Your task to perform on an android device: turn on the 24-hour format for clock Image 0: 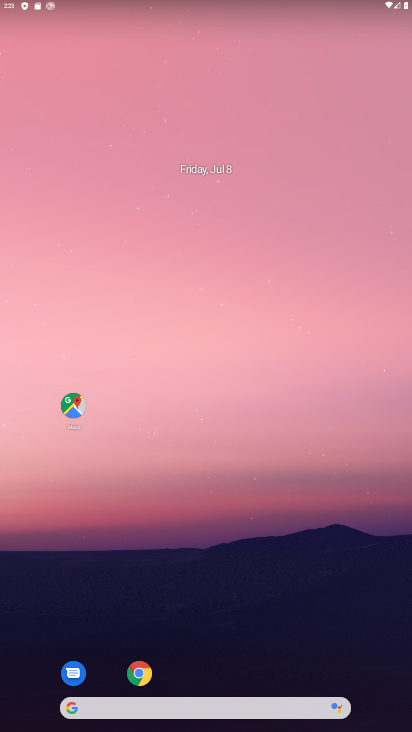
Step 0: drag from (329, 647) to (339, 14)
Your task to perform on an android device: turn on the 24-hour format for clock Image 1: 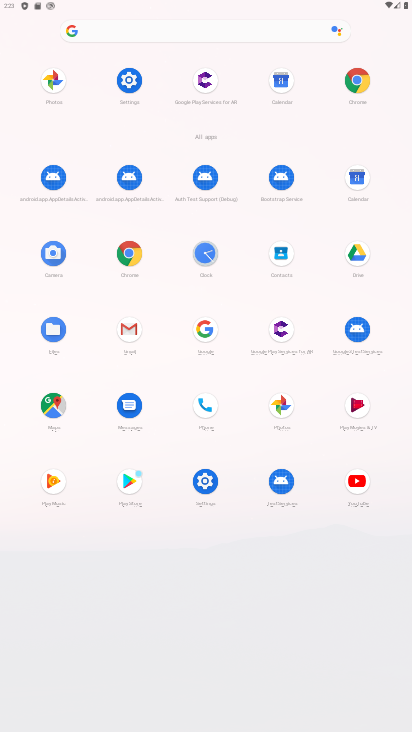
Step 1: click (218, 244)
Your task to perform on an android device: turn on the 24-hour format for clock Image 2: 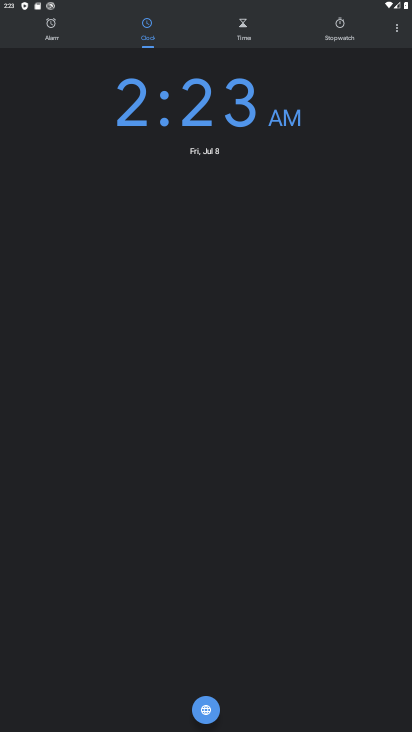
Step 2: click (392, 34)
Your task to perform on an android device: turn on the 24-hour format for clock Image 3: 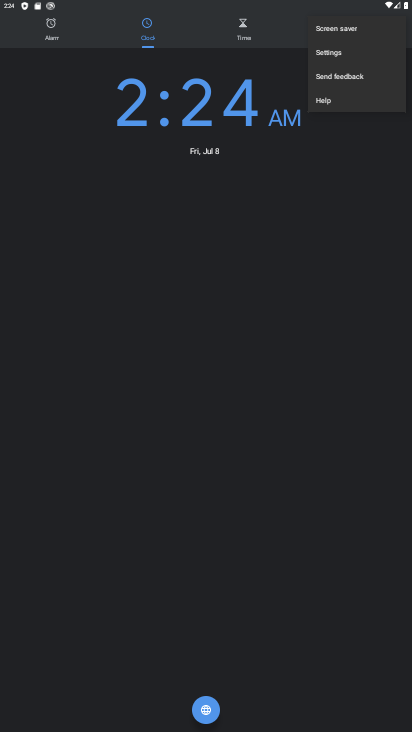
Step 3: click (332, 64)
Your task to perform on an android device: turn on the 24-hour format for clock Image 4: 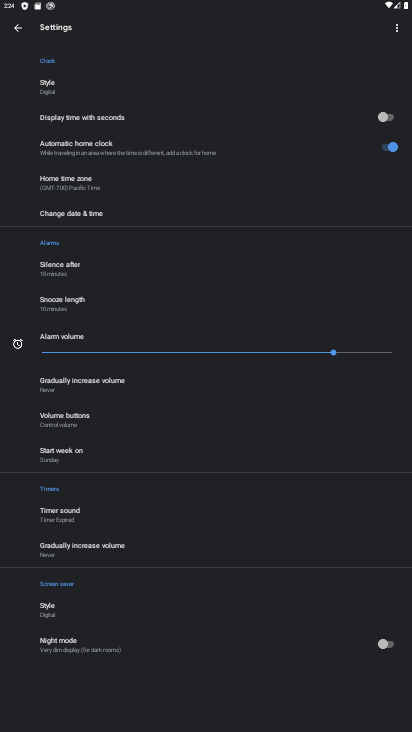
Step 4: click (103, 215)
Your task to perform on an android device: turn on the 24-hour format for clock Image 5: 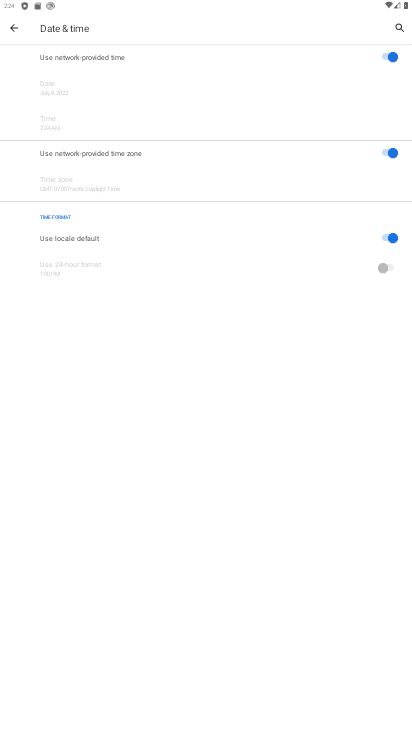
Step 5: click (373, 243)
Your task to perform on an android device: turn on the 24-hour format for clock Image 6: 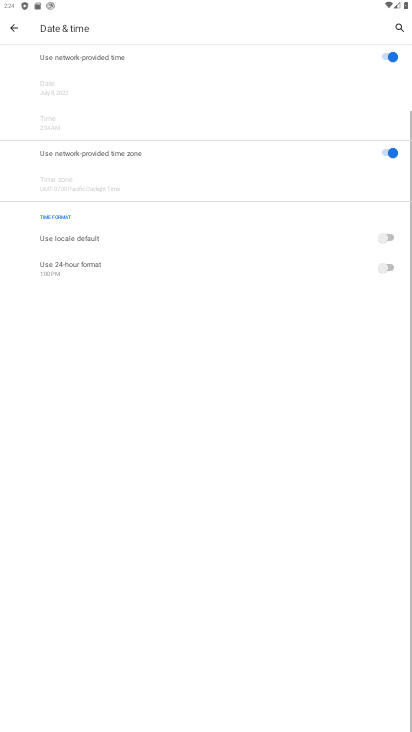
Step 6: click (353, 266)
Your task to perform on an android device: turn on the 24-hour format for clock Image 7: 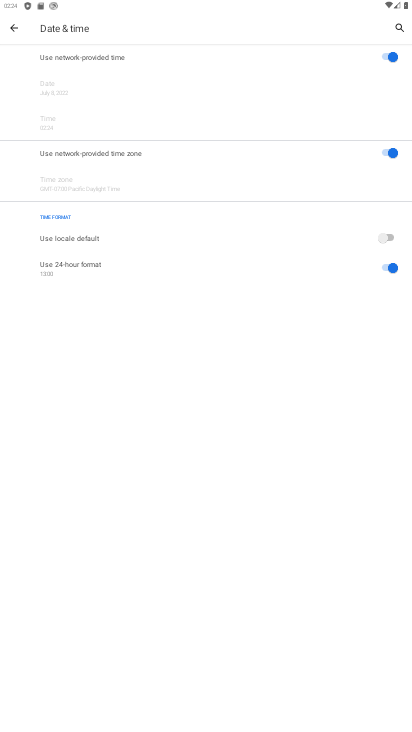
Step 7: task complete